Your task to perform on an android device: turn on javascript in the chrome app Image 0: 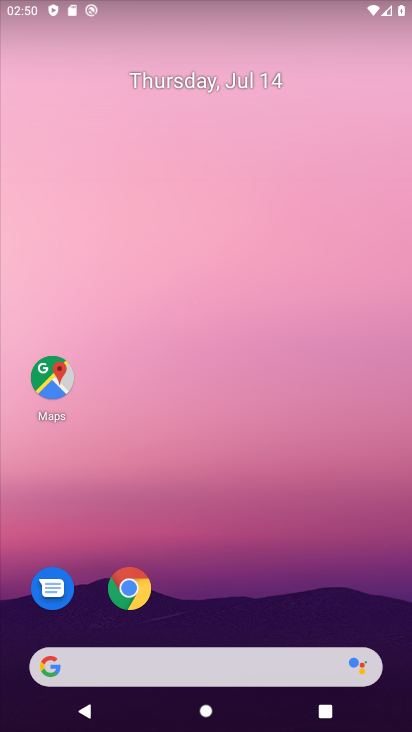
Step 0: click (137, 589)
Your task to perform on an android device: turn on javascript in the chrome app Image 1: 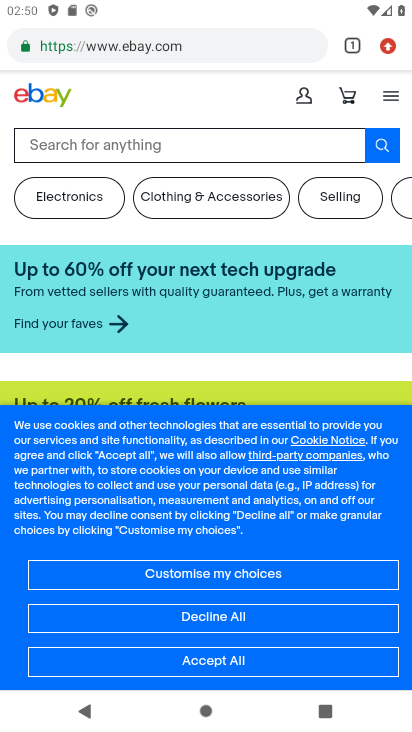
Step 1: click (394, 44)
Your task to perform on an android device: turn on javascript in the chrome app Image 2: 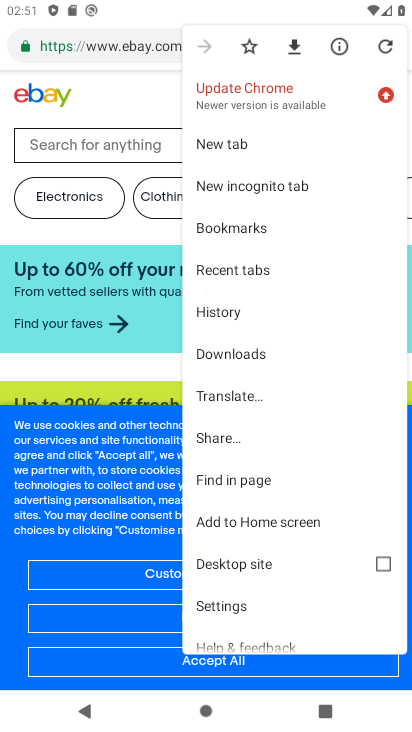
Step 2: click (256, 609)
Your task to perform on an android device: turn on javascript in the chrome app Image 3: 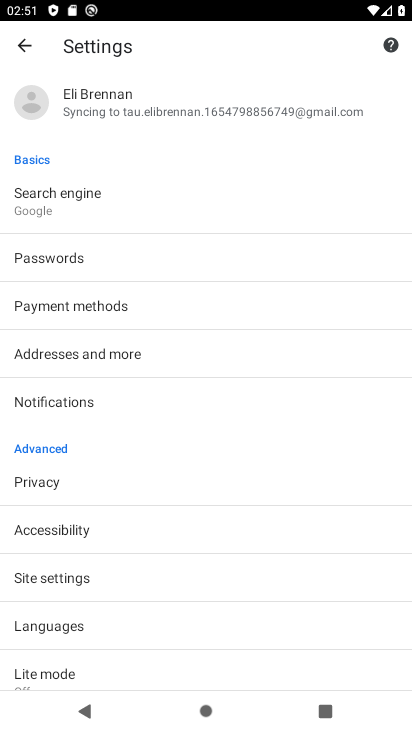
Step 3: drag from (153, 651) to (103, 337)
Your task to perform on an android device: turn on javascript in the chrome app Image 4: 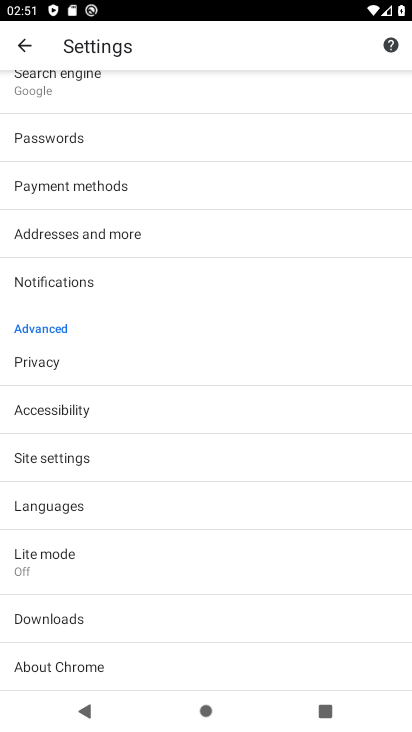
Step 4: click (110, 463)
Your task to perform on an android device: turn on javascript in the chrome app Image 5: 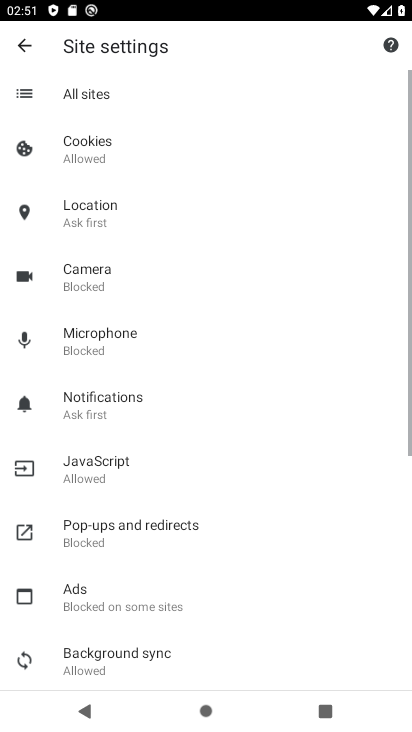
Step 5: click (110, 463)
Your task to perform on an android device: turn on javascript in the chrome app Image 6: 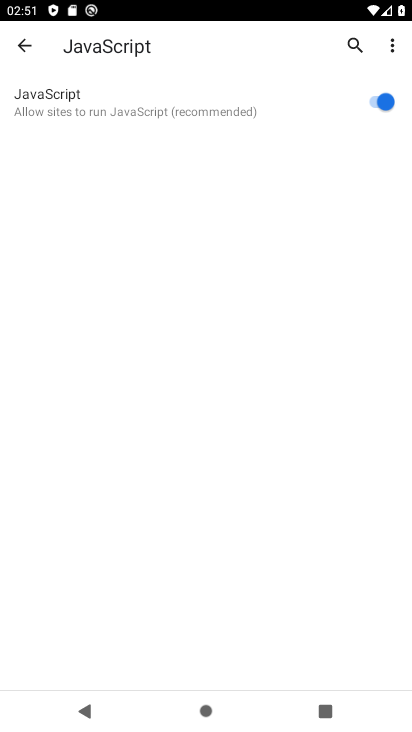
Step 6: task complete